Your task to perform on an android device: Open settings on Google Maps Image 0: 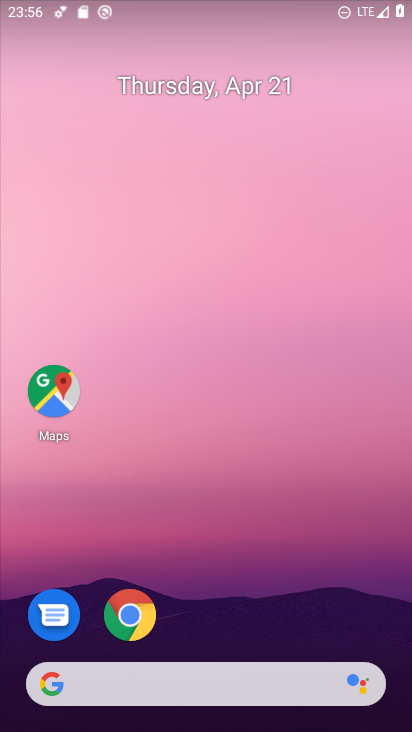
Step 0: click (56, 389)
Your task to perform on an android device: Open settings on Google Maps Image 1: 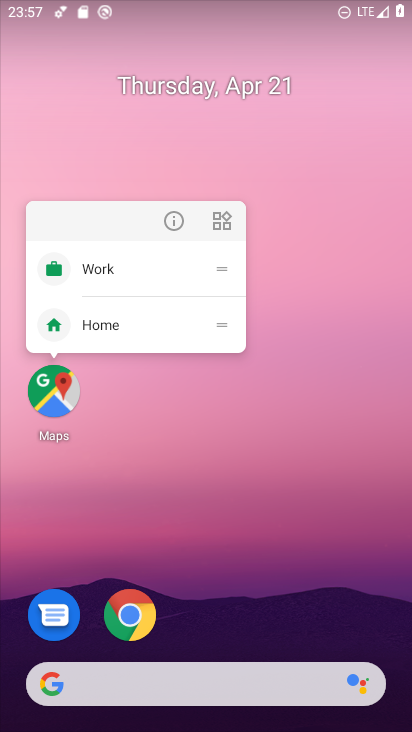
Step 1: click (216, 608)
Your task to perform on an android device: Open settings on Google Maps Image 2: 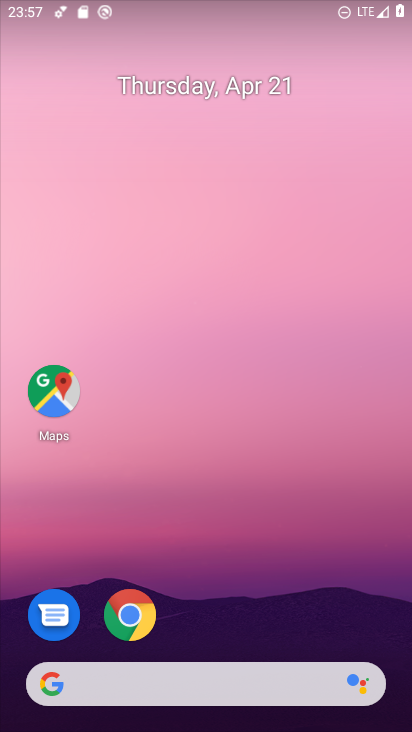
Step 2: drag from (264, 617) to (296, 1)
Your task to perform on an android device: Open settings on Google Maps Image 3: 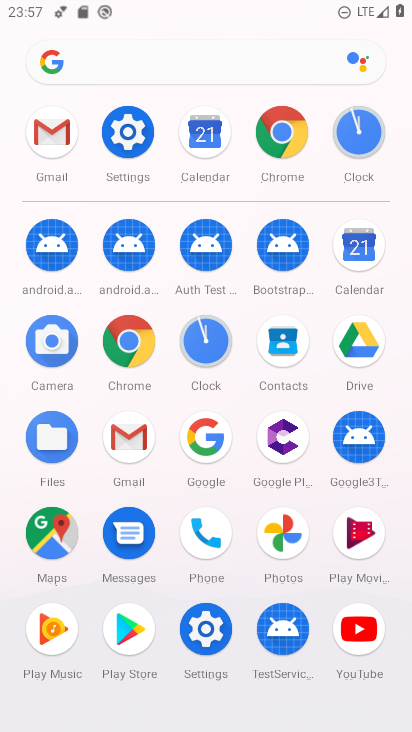
Step 3: click (47, 530)
Your task to perform on an android device: Open settings on Google Maps Image 4: 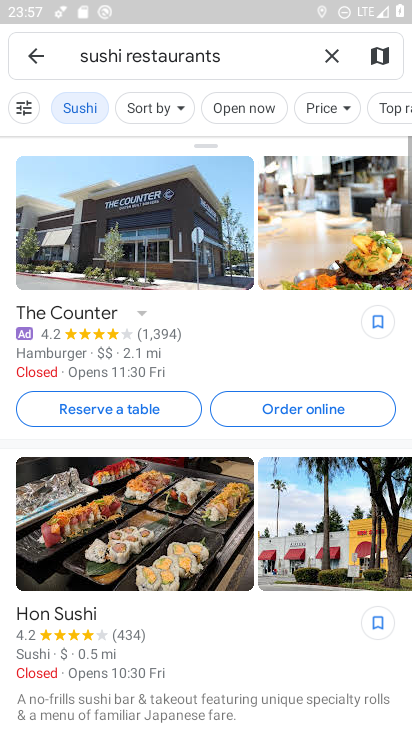
Step 4: click (30, 56)
Your task to perform on an android device: Open settings on Google Maps Image 5: 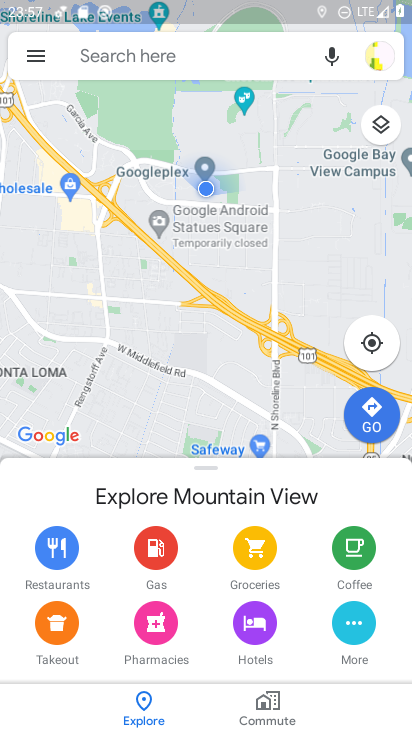
Step 5: click (38, 65)
Your task to perform on an android device: Open settings on Google Maps Image 6: 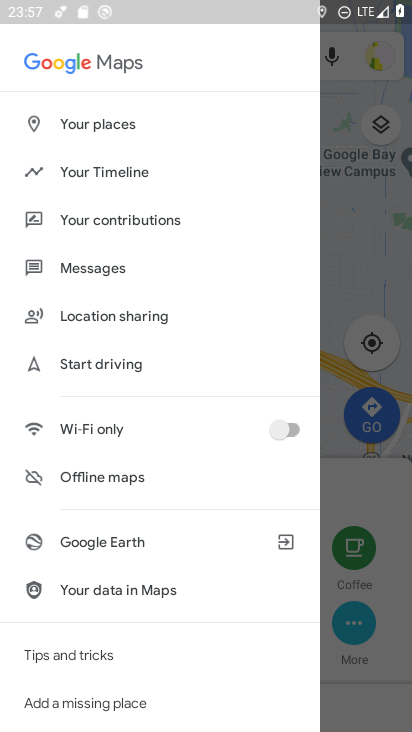
Step 6: drag from (117, 641) to (139, 165)
Your task to perform on an android device: Open settings on Google Maps Image 7: 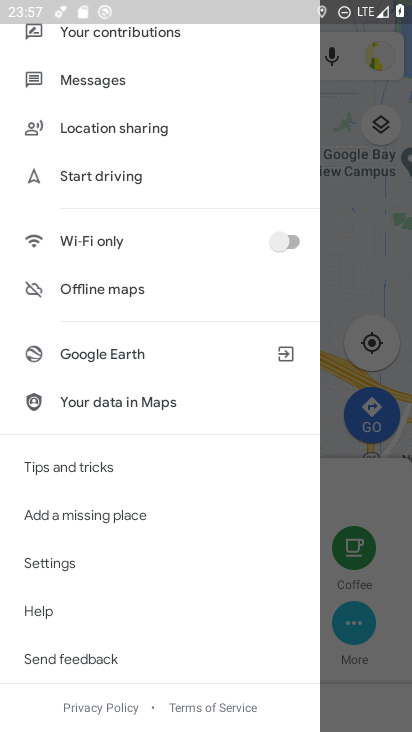
Step 7: click (84, 558)
Your task to perform on an android device: Open settings on Google Maps Image 8: 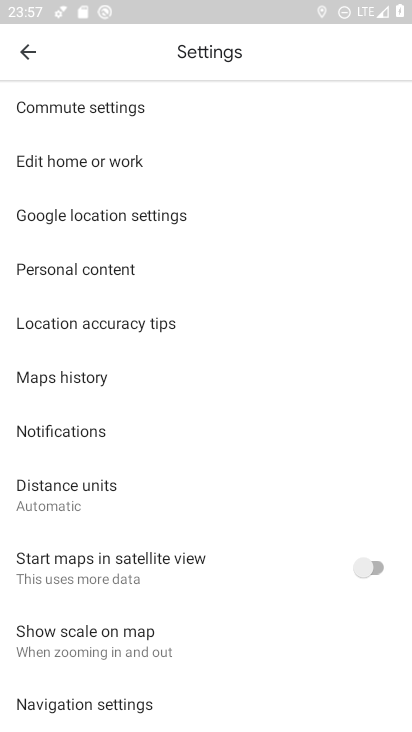
Step 8: task complete